Your task to perform on an android device: open wifi settings Image 0: 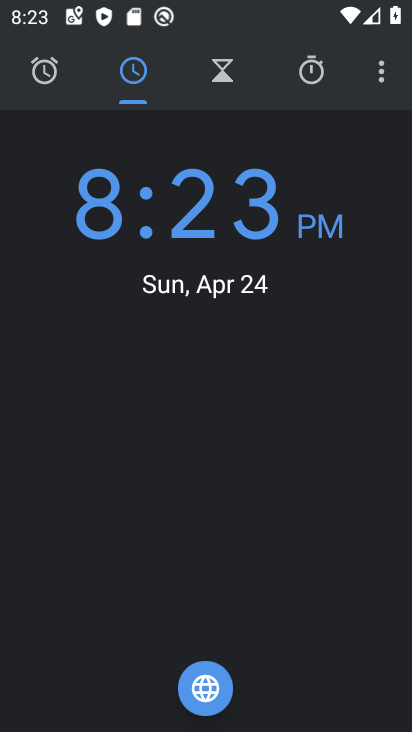
Step 0: press home button
Your task to perform on an android device: open wifi settings Image 1: 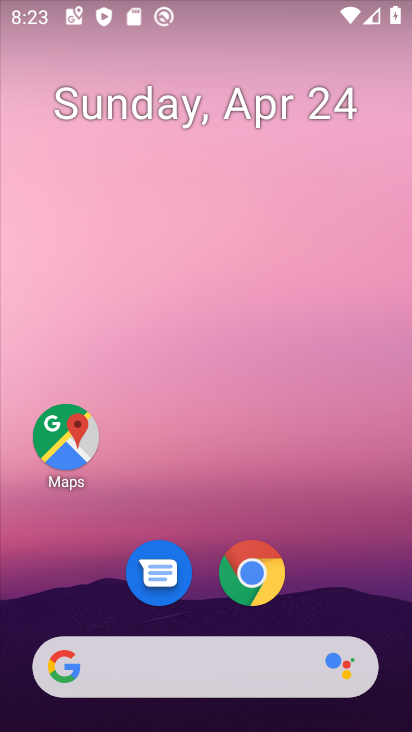
Step 1: drag from (338, 599) to (296, 153)
Your task to perform on an android device: open wifi settings Image 2: 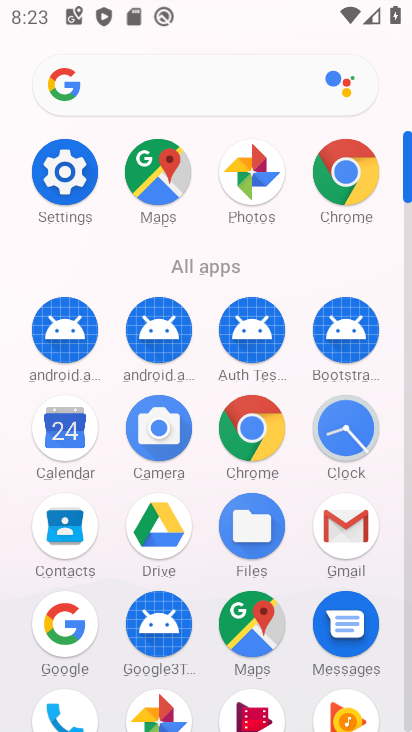
Step 2: click (72, 190)
Your task to perform on an android device: open wifi settings Image 3: 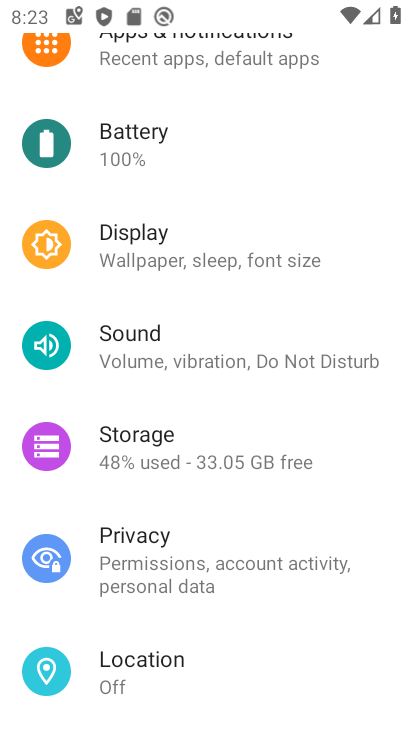
Step 3: drag from (371, 175) to (343, 634)
Your task to perform on an android device: open wifi settings Image 4: 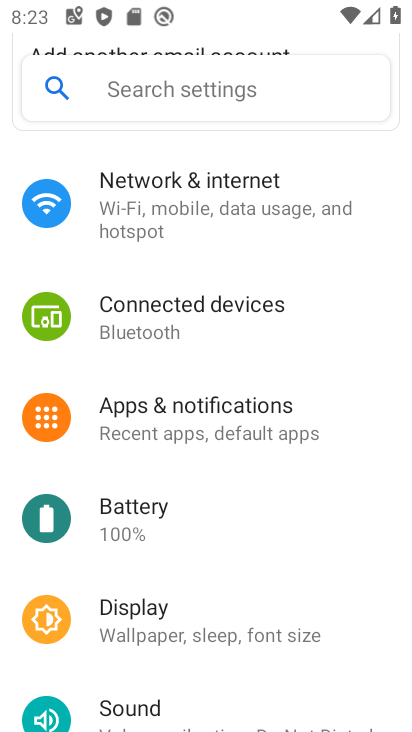
Step 4: click (195, 223)
Your task to perform on an android device: open wifi settings Image 5: 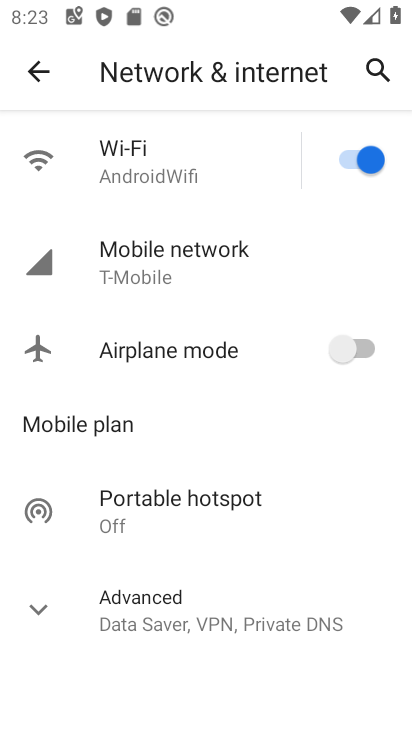
Step 5: click (130, 163)
Your task to perform on an android device: open wifi settings Image 6: 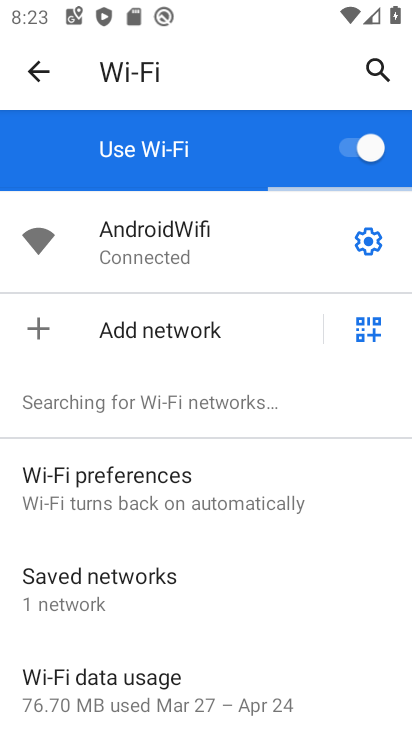
Step 6: task complete